Your task to perform on an android device: turn notification dots off Image 0: 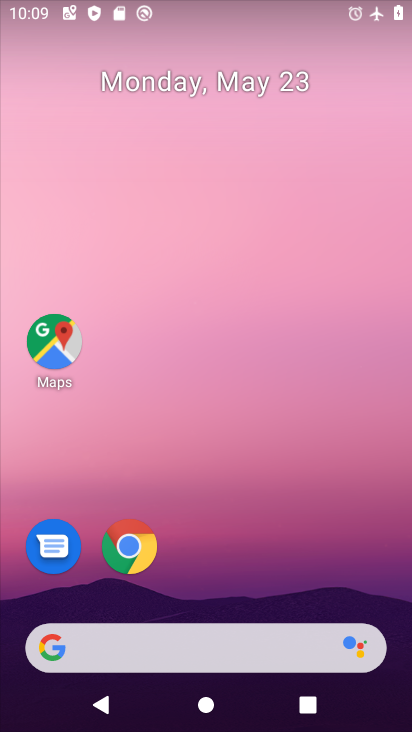
Step 0: drag from (386, 609) to (330, 27)
Your task to perform on an android device: turn notification dots off Image 1: 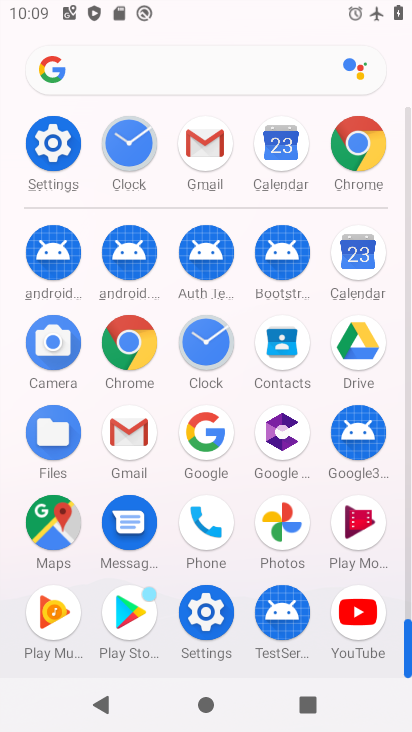
Step 1: click (204, 615)
Your task to perform on an android device: turn notification dots off Image 2: 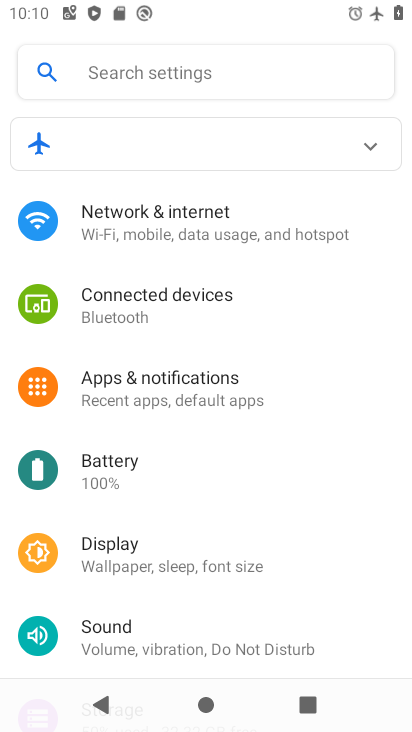
Step 2: click (170, 389)
Your task to perform on an android device: turn notification dots off Image 3: 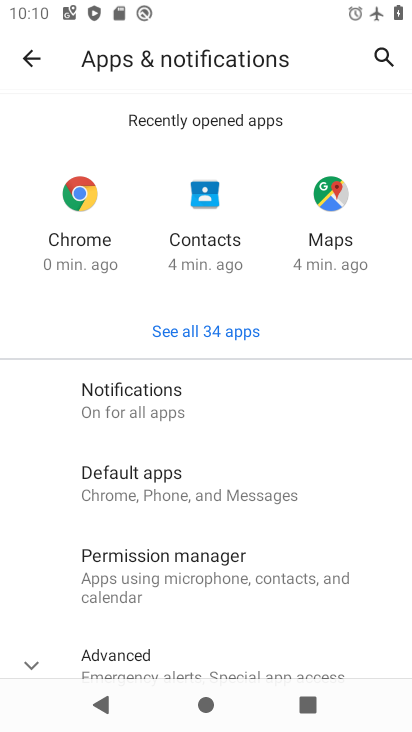
Step 3: click (133, 412)
Your task to perform on an android device: turn notification dots off Image 4: 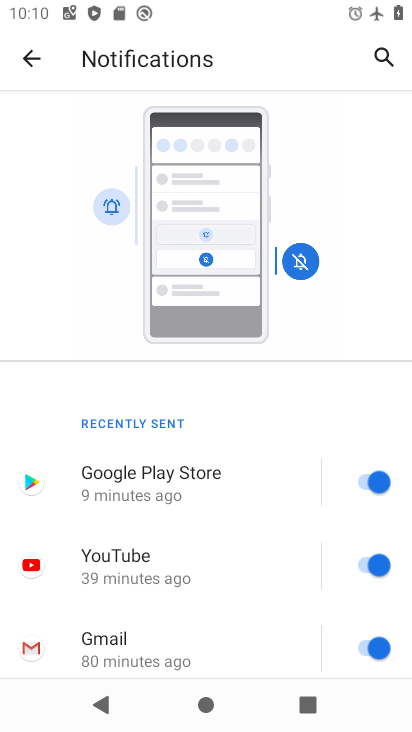
Step 4: drag from (258, 634) to (238, 184)
Your task to perform on an android device: turn notification dots off Image 5: 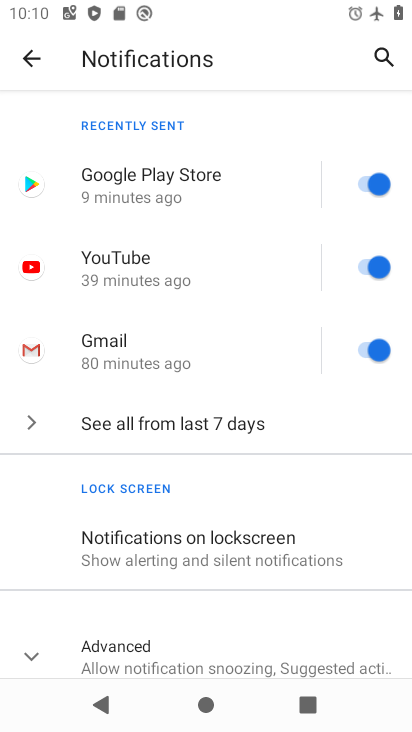
Step 5: drag from (286, 635) to (281, 305)
Your task to perform on an android device: turn notification dots off Image 6: 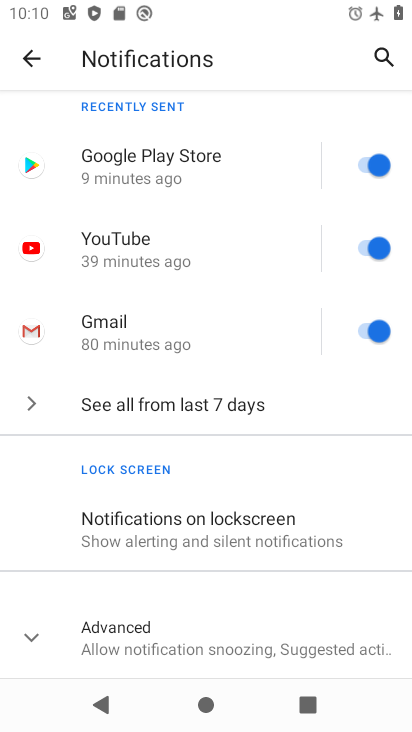
Step 6: click (26, 636)
Your task to perform on an android device: turn notification dots off Image 7: 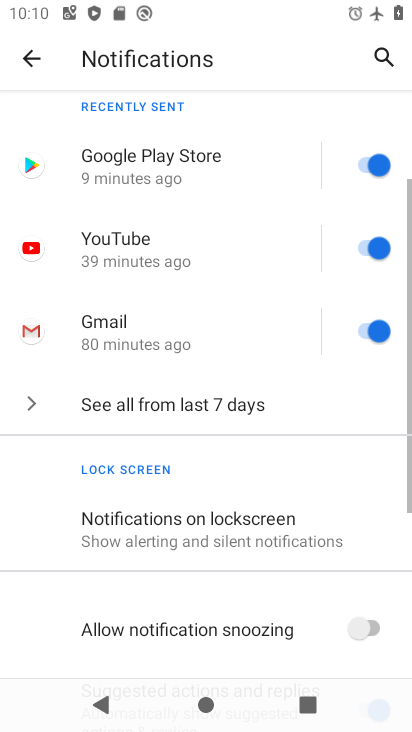
Step 7: drag from (261, 594) to (276, 343)
Your task to perform on an android device: turn notification dots off Image 8: 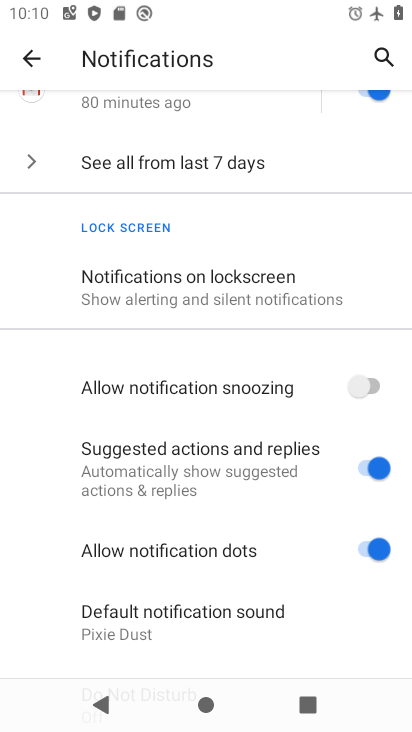
Step 8: click (363, 548)
Your task to perform on an android device: turn notification dots off Image 9: 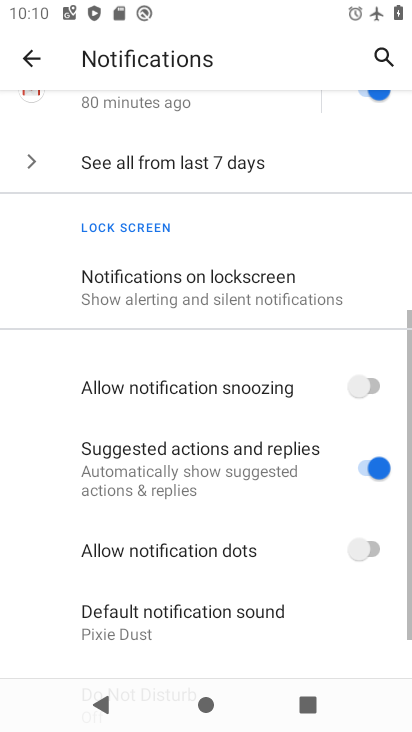
Step 9: task complete